Your task to perform on an android device: find snoozed emails in the gmail app Image 0: 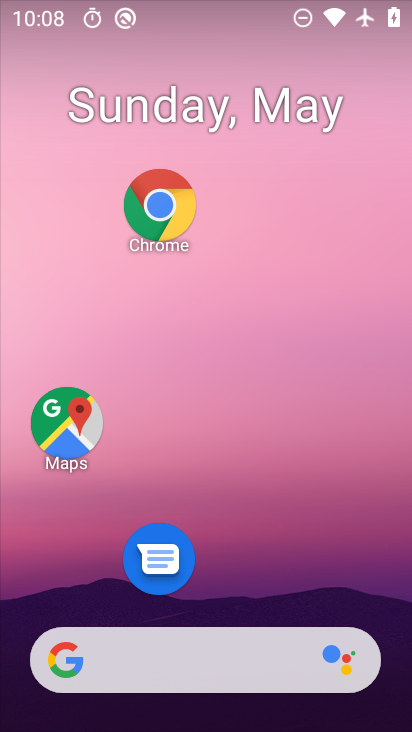
Step 0: press home button
Your task to perform on an android device: find snoozed emails in the gmail app Image 1: 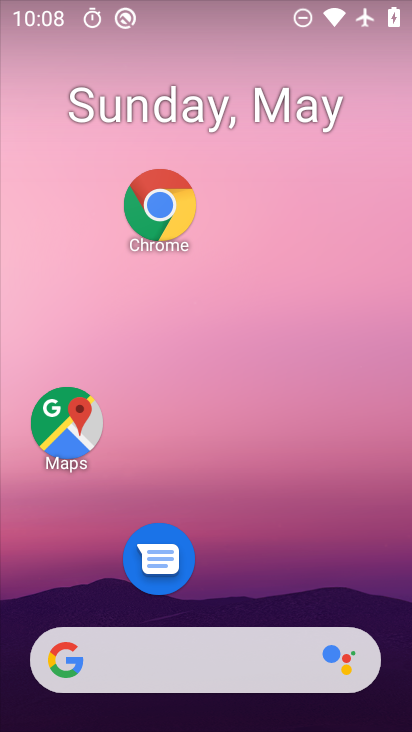
Step 1: press home button
Your task to perform on an android device: find snoozed emails in the gmail app Image 2: 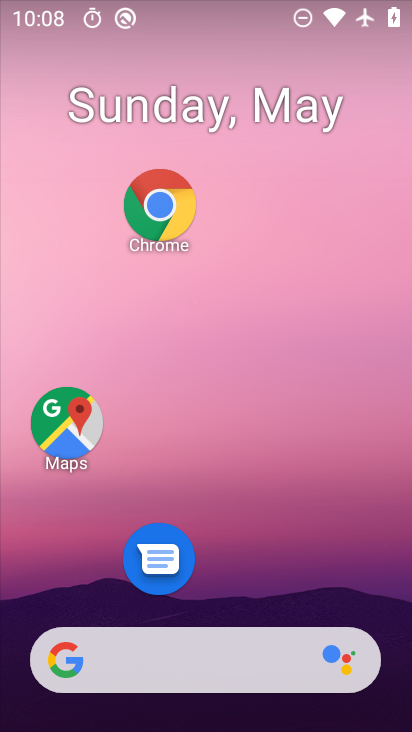
Step 2: drag from (382, 638) to (394, 141)
Your task to perform on an android device: find snoozed emails in the gmail app Image 3: 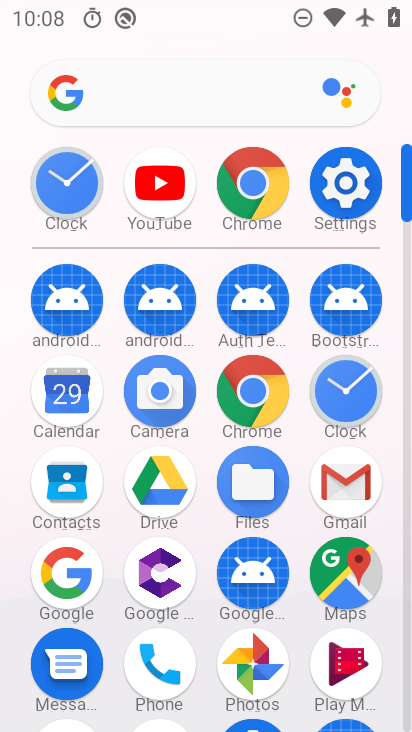
Step 3: click (331, 489)
Your task to perform on an android device: find snoozed emails in the gmail app Image 4: 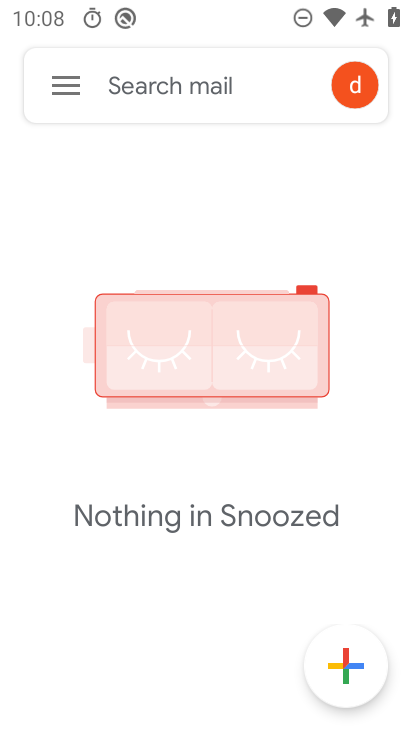
Step 4: click (59, 100)
Your task to perform on an android device: find snoozed emails in the gmail app Image 5: 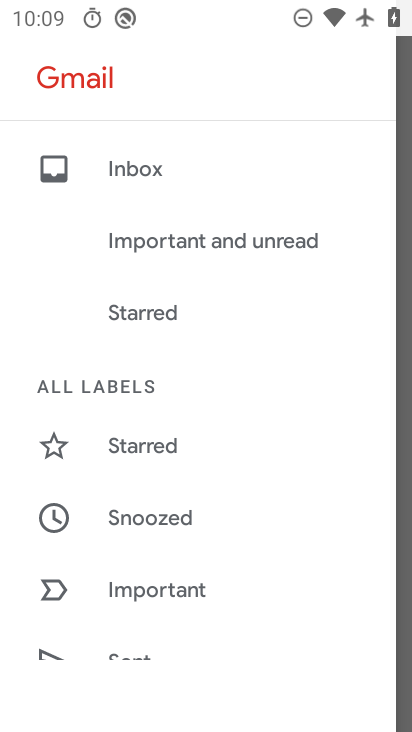
Step 5: click (151, 532)
Your task to perform on an android device: find snoozed emails in the gmail app Image 6: 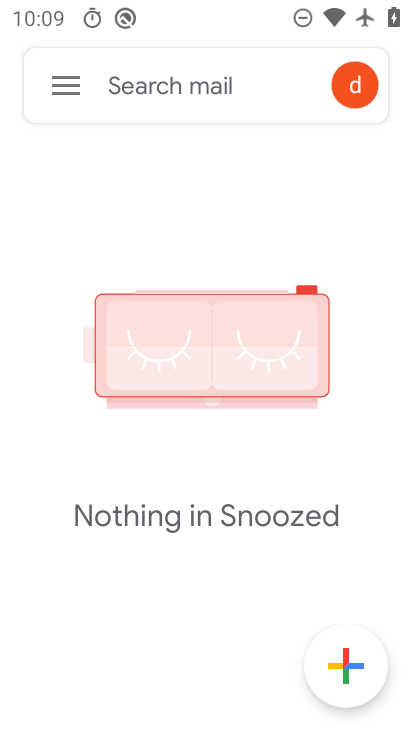
Step 6: task complete